Your task to perform on an android device: turn on the 24-hour format for clock Image 0: 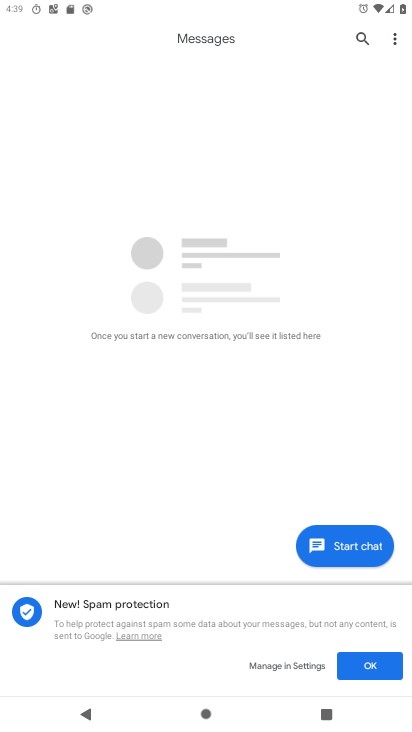
Step 0: press home button
Your task to perform on an android device: turn on the 24-hour format for clock Image 1: 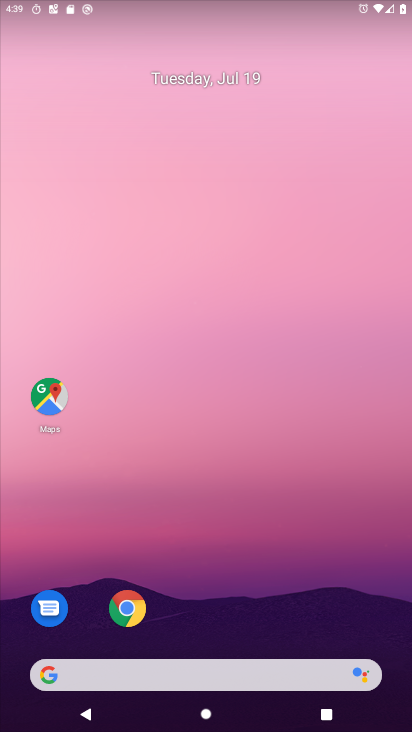
Step 1: drag from (214, 671) to (243, 202)
Your task to perform on an android device: turn on the 24-hour format for clock Image 2: 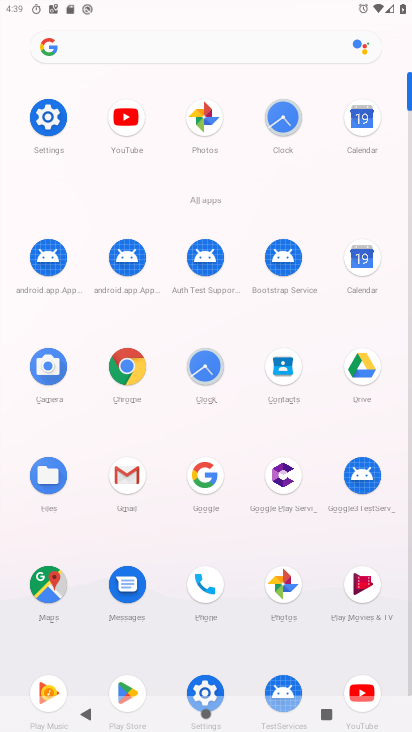
Step 2: click (283, 117)
Your task to perform on an android device: turn on the 24-hour format for clock Image 3: 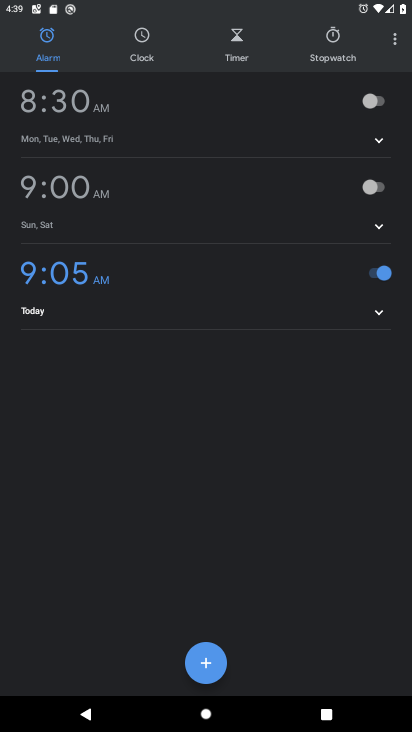
Step 3: click (393, 40)
Your task to perform on an android device: turn on the 24-hour format for clock Image 4: 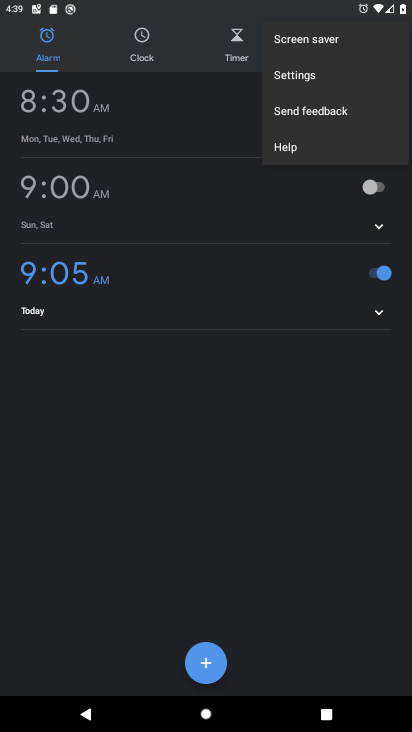
Step 4: click (305, 74)
Your task to perform on an android device: turn on the 24-hour format for clock Image 5: 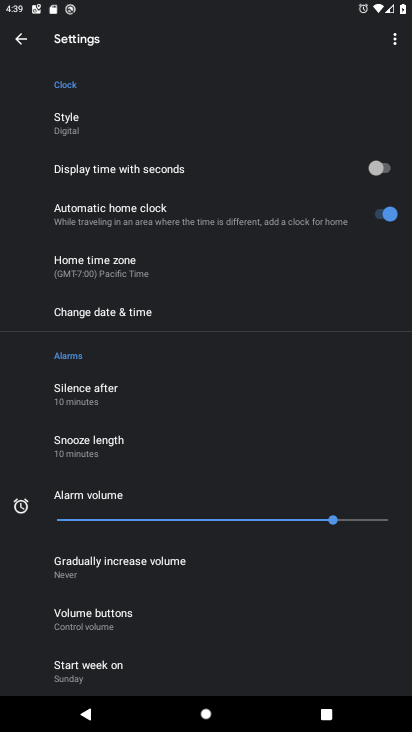
Step 5: click (122, 308)
Your task to perform on an android device: turn on the 24-hour format for clock Image 6: 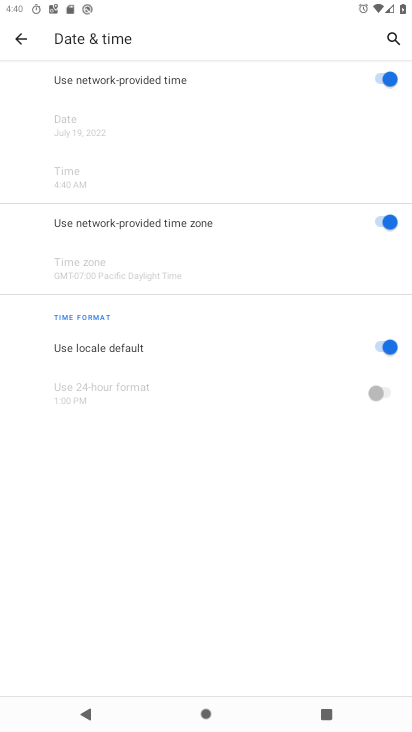
Step 6: click (379, 351)
Your task to perform on an android device: turn on the 24-hour format for clock Image 7: 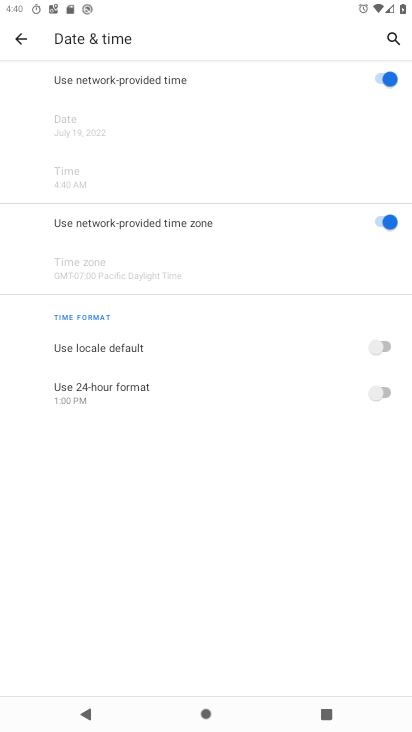
Step 7: click (384, 393)
Your task to perform on an android device: turn on the 24-hour format for clock Image 8: 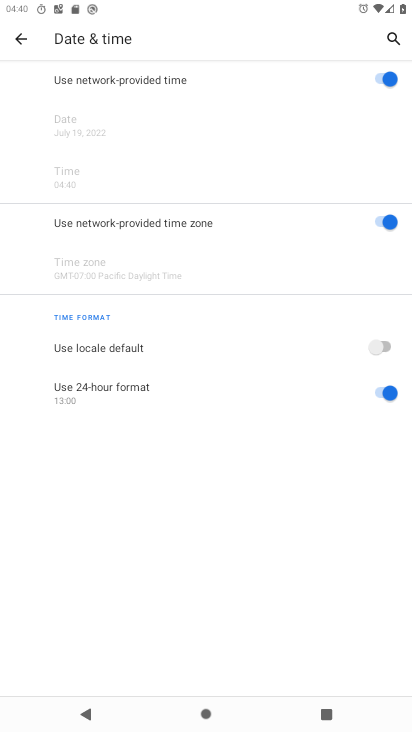
Step 8: task complete